Your task to perform on an android device: Show me recent news Image 0: 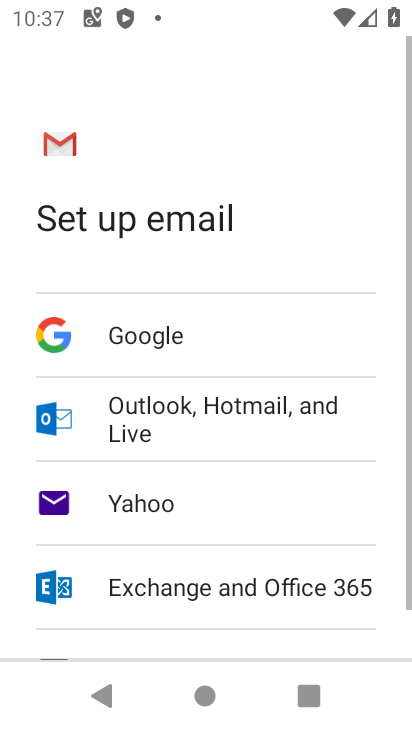
Step 0: press home button
Your task to perform on an android device: Show me recent news Image 1: 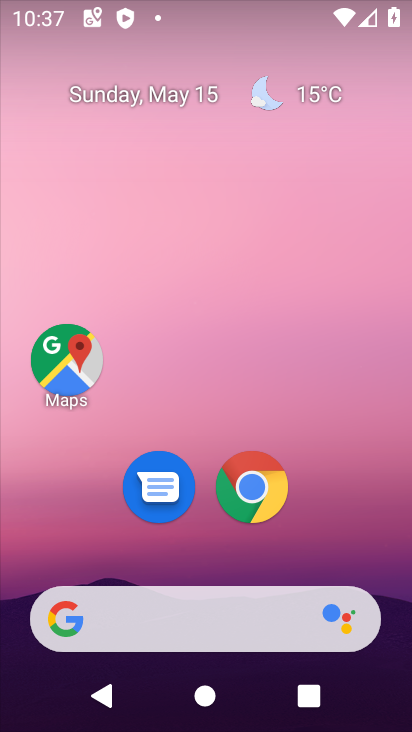
Step 1: task complete